Your task to perform on an android device: Go to wifi settings Image 0: 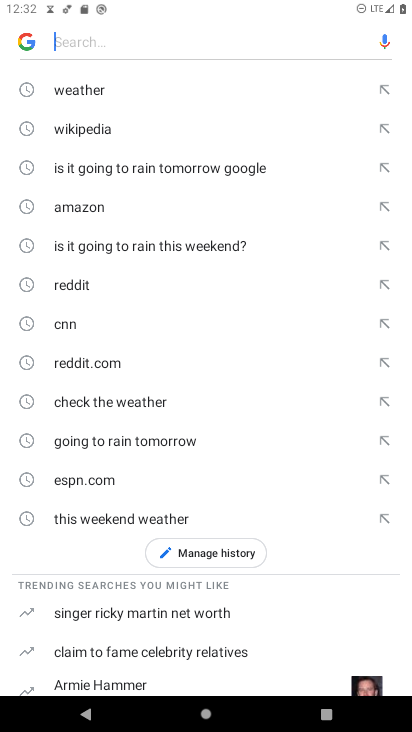
Step 0: press home button
Your task to perform on an android device: Go to wifi settings Image 1: 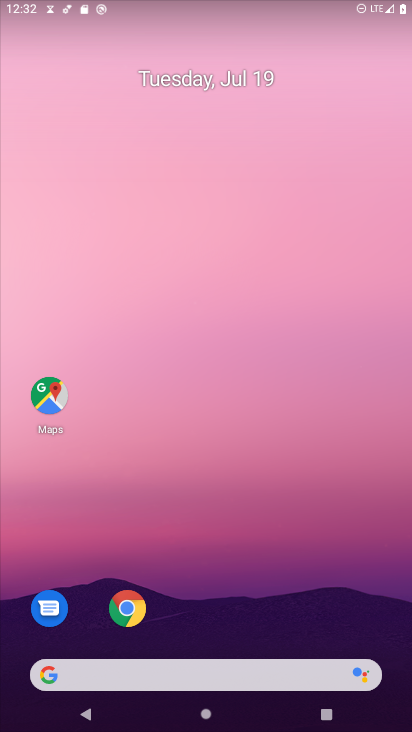
Step 1: drag from (329, 679) to (399, 13)
Your task to perform on an android device: Go to wifi settings Image 2: 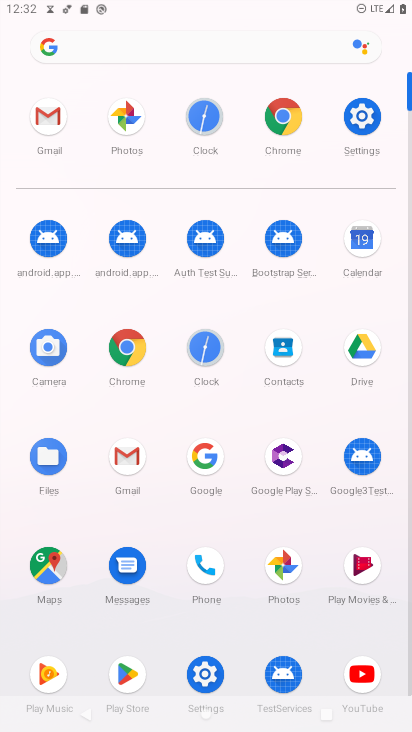
Step 2: click (361, 111)
Your task to perform on an android device: Go to wifi settings Image 3: 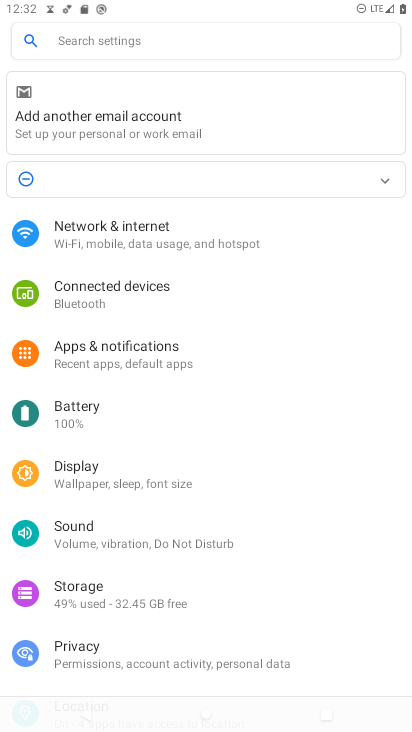
Step 3: click (108, 233)
Your task to perform on an android device: Go to wifi settings Image 4: 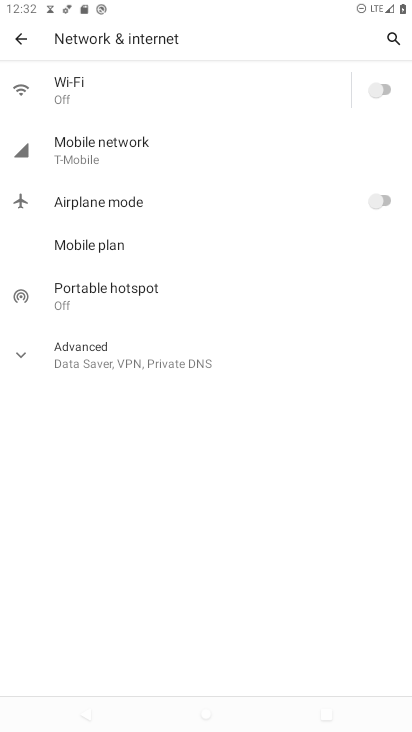
Step 4: click (97, 85)
Your task to perform on an android device: Go to wifi settings Image 5: 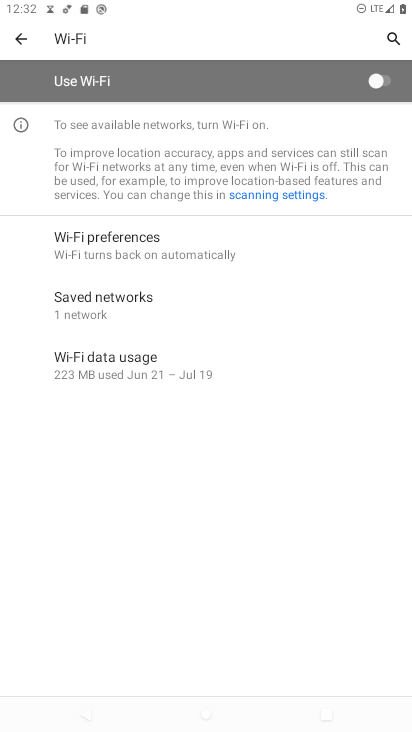
Step 5: task complete